Your task to perform on an android device: check battery use Image 0: 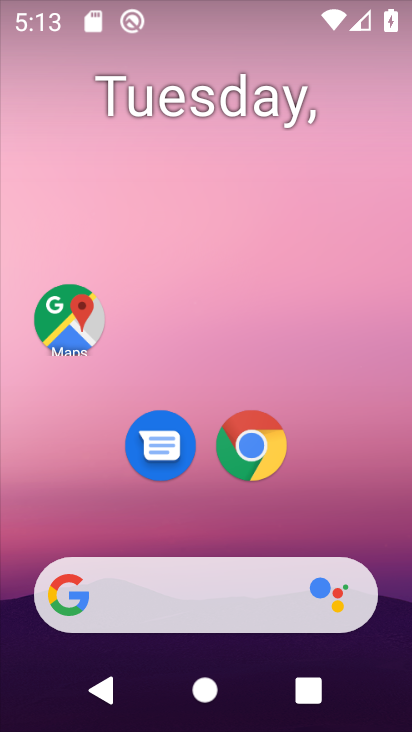
Step 0: drag from (199, 328) to (149, 17)
Your task to perform on an android device: check battery use Image 1: 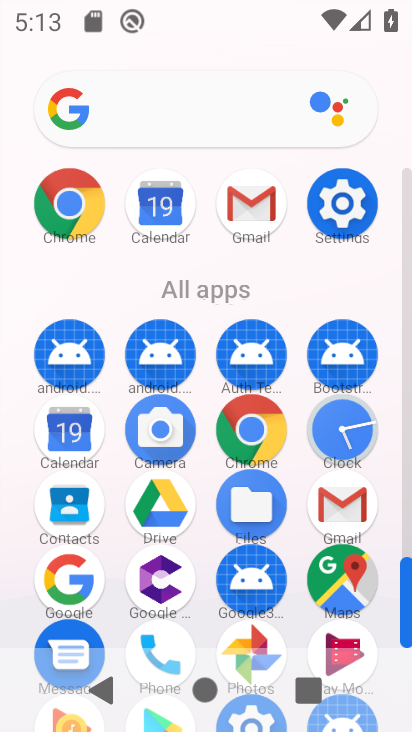
Step 1: click (354, 223)
Your task to perform on an android device: check battery use Image 2: 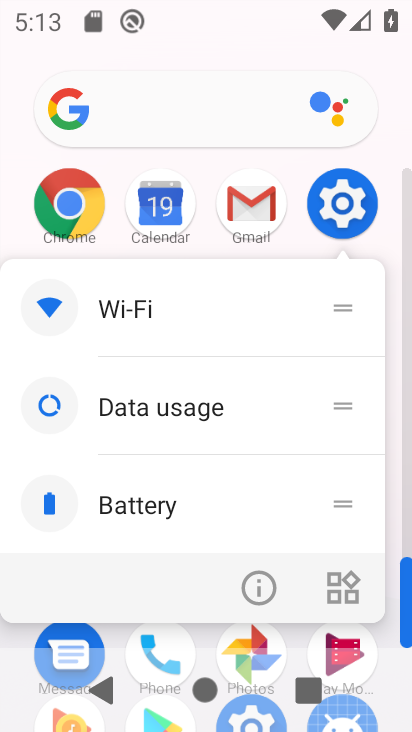
Step 2: click (354, 223)
Your task to perform on an android device: check battery use Image 3: 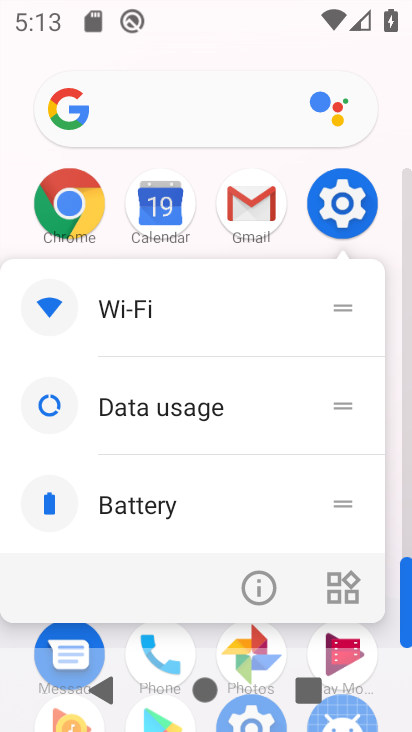
Step 3: click (340, 203)
Your task to perform on an android device: check battery use Image 4: 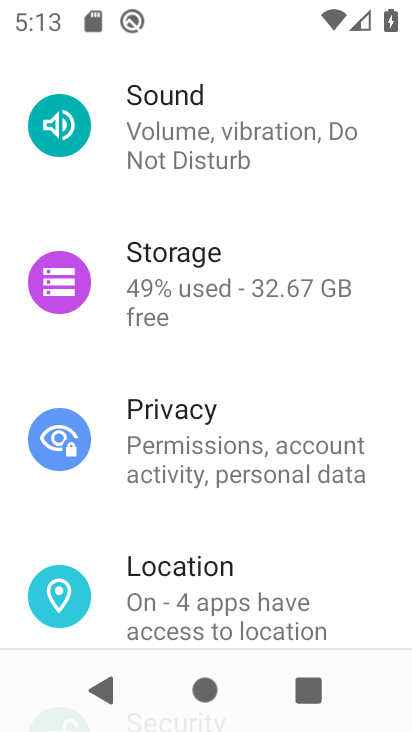
Step 4: drag from (232, 293) to (250, 666)
Your task to perform on an android device: check battery use Image 5: 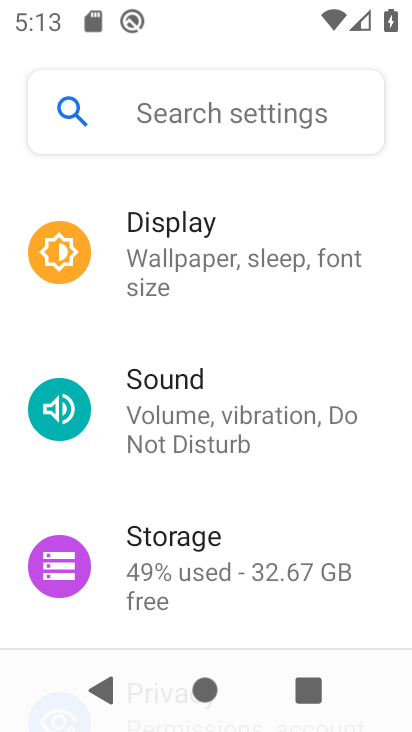
Step 5: drag from (231, 382) to (237, 702)
Your task to perform on an android device: check battery use Image 6: 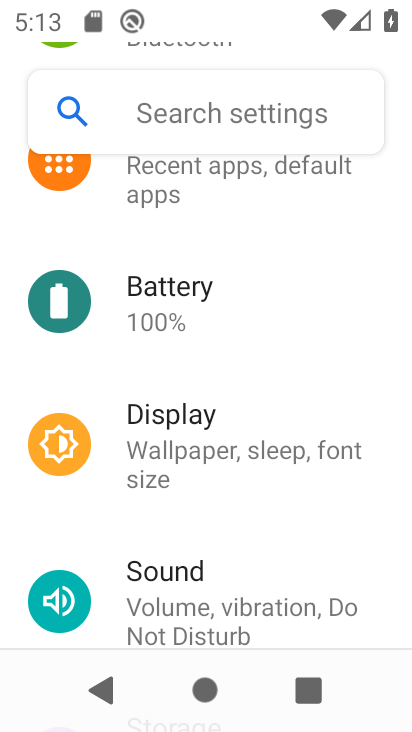
Step 6: drag from (207, 237) to (200, 586)
Your task to perform on an android device: check battery use Image 7: 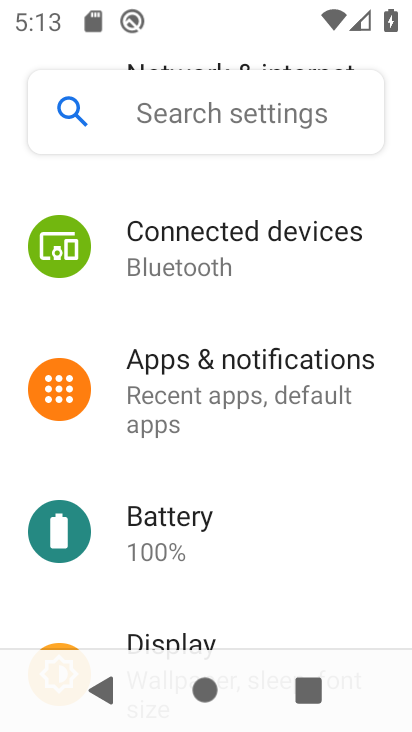
Step 7: click (181, 536)
Your task to perform on an android device: check battery use Image 8: 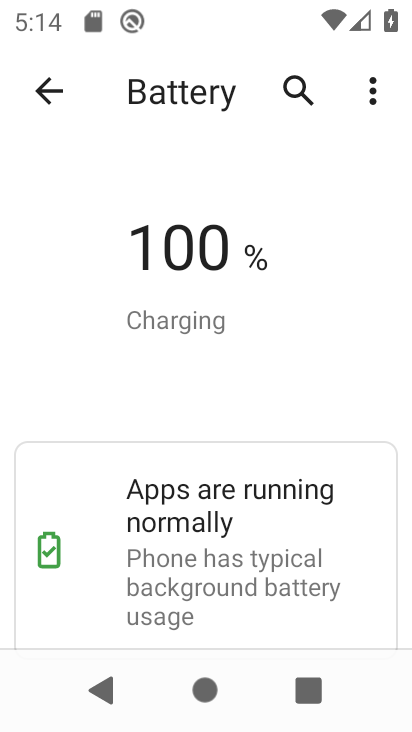
Step 8: click (236, 198)
Your task to perform on an android device: check battery use Image 9: 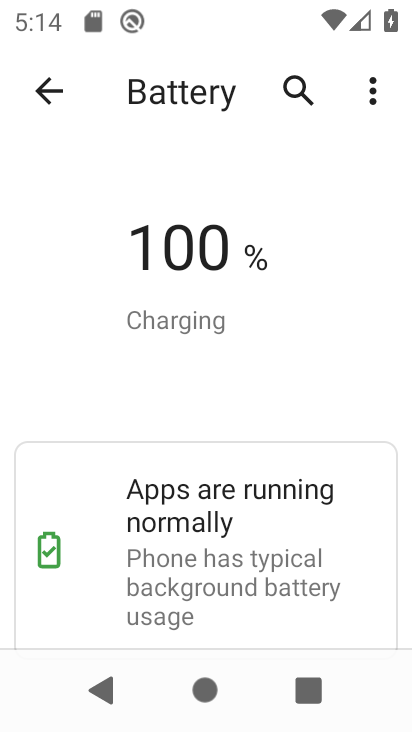
Step 9: task complete